Your task to perform on an android device: Clear the cart on newegg. Search for "bose soundlink" on newegg, select the first entry, add it to the cart, then select checkout. Image 0: 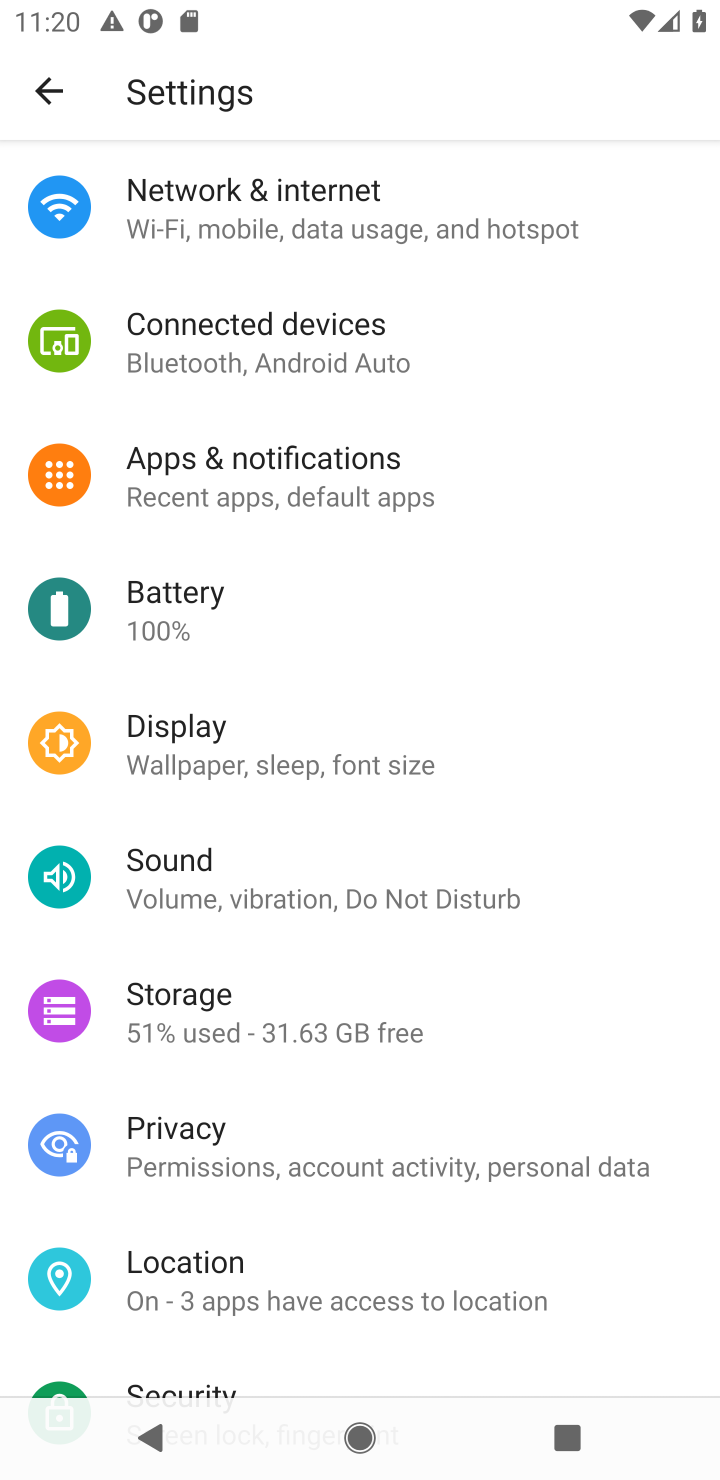
Step 0: press home button
Your task to perform on an android device: Clear the cart on newegg. Search for "bose soundlink" on newegg, select the first entry, add it to the cart, then select checkout. Image 1: 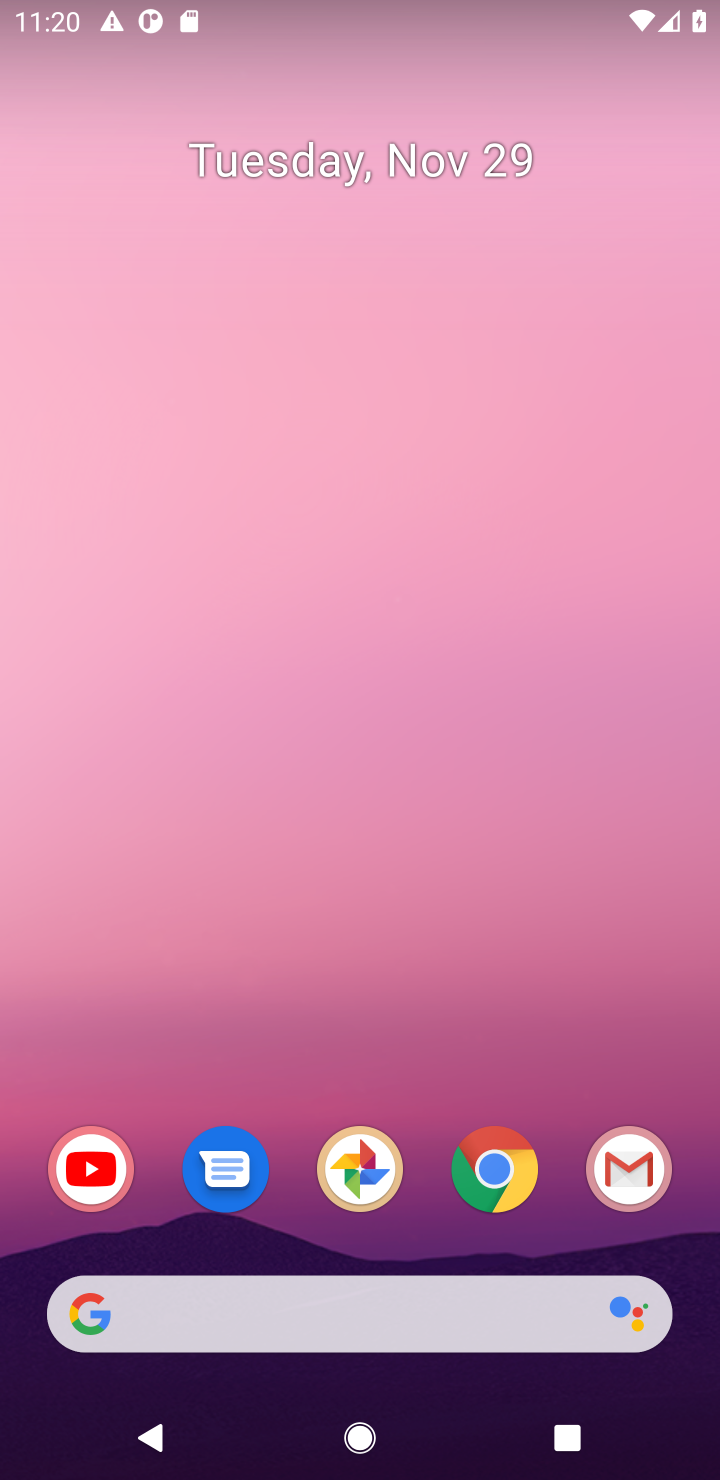
Step 1: click (484, 1321)
Your task to perform on an android device: Clear the cart on newegg. Search for "bose soundlink" on newegg, select the first entry, add it to the cart, then select checkout. Image 2: 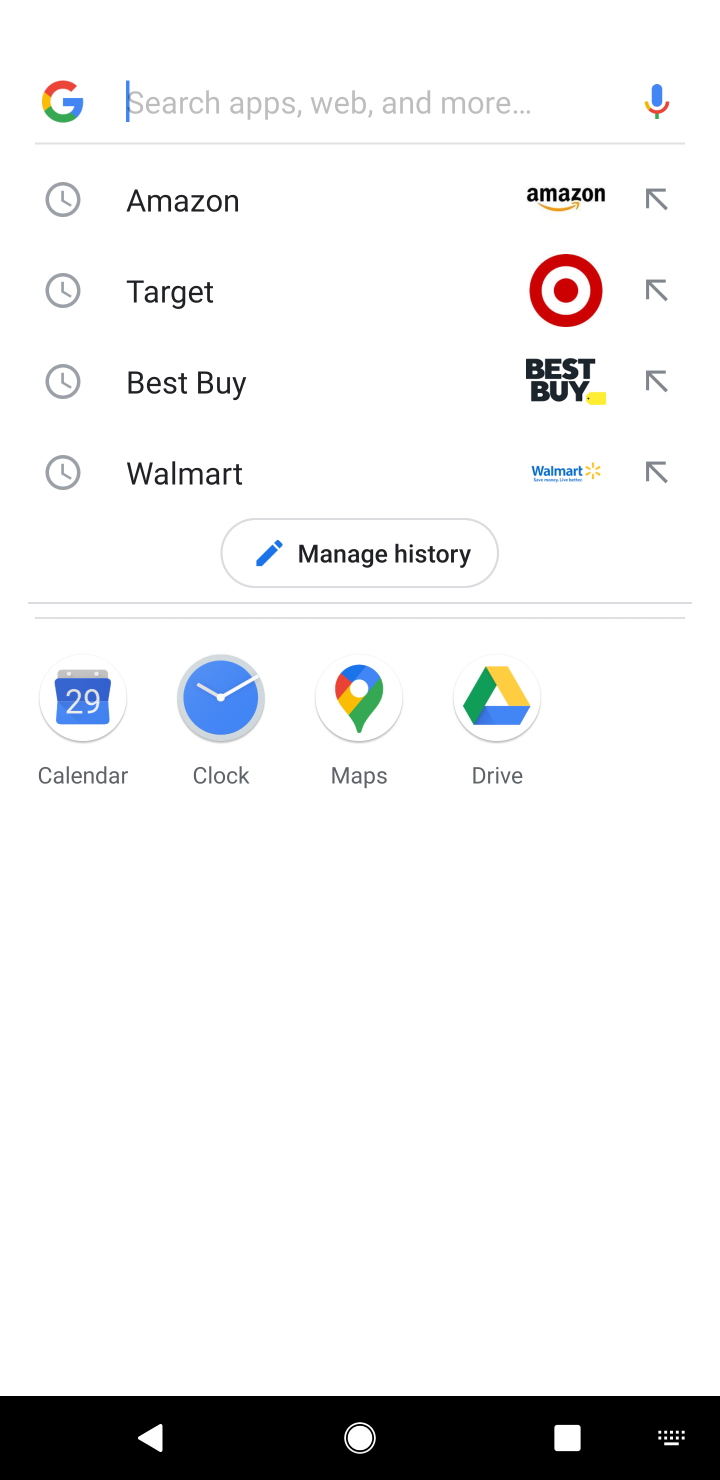
Step 2: type "newegg"
Your task to perform on an android device: Clear the cart on newegg. Search for "bose soundlink" on newegg, select the first entry, add it to the cart, then select checkout. Image 3: 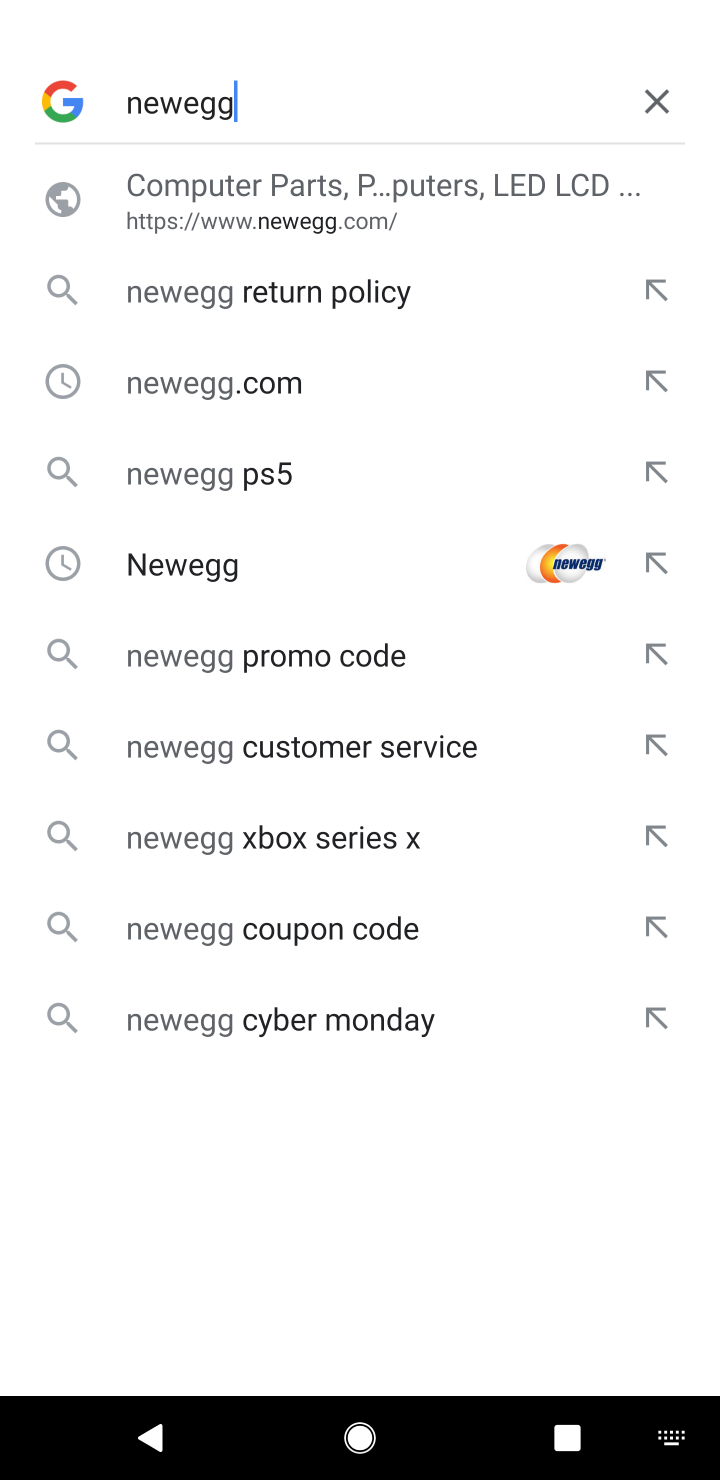
Step 3: click (187, 154)
Your task to perform on an android device: Clear the cart on newegg. Search for "bose soundlink" on newegg, select the first entry, add it to the cart, then select checkout. Image 4: 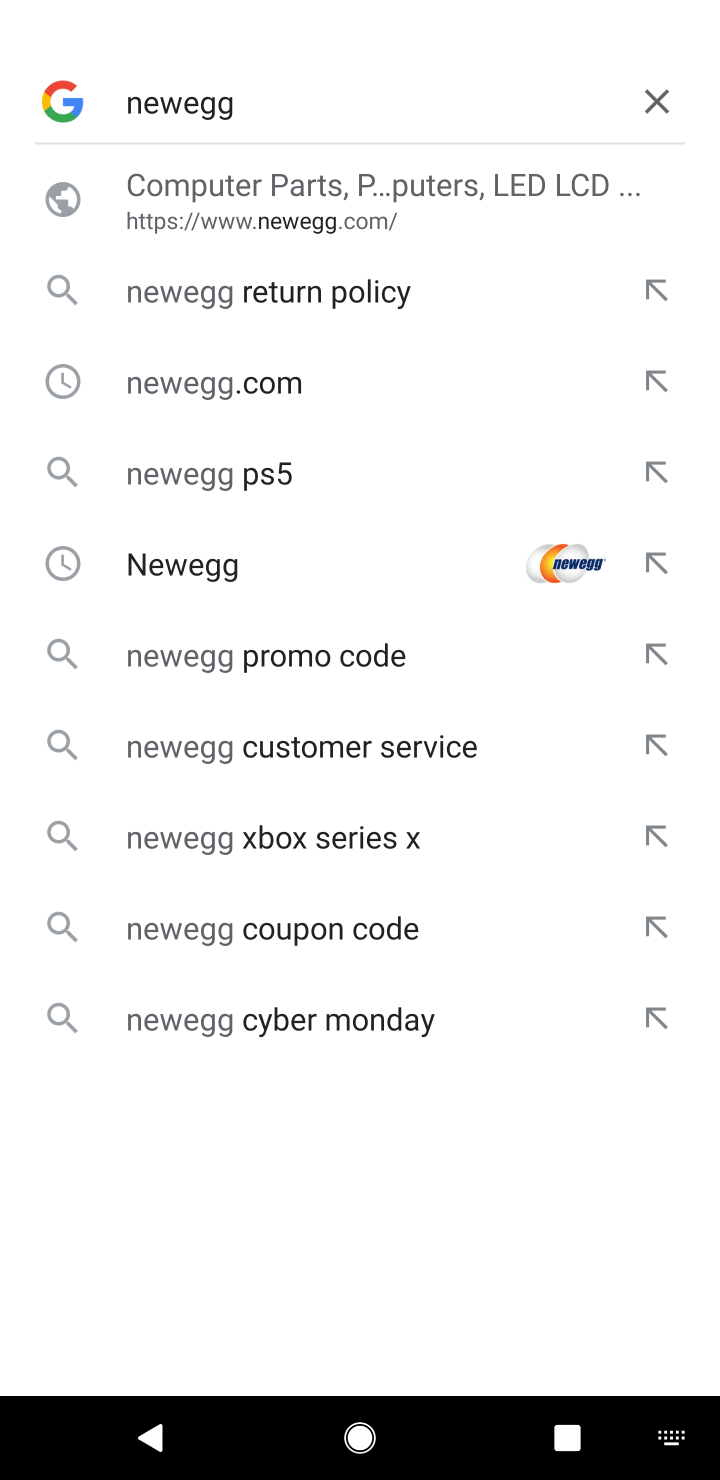
Step 4: click (239, 194)
Your task to perform on an android device: Clear the cart on newegg. Search for "bose soundlink" on newegg, select the first entry, add it to the cart, then select checkout. Image 5: 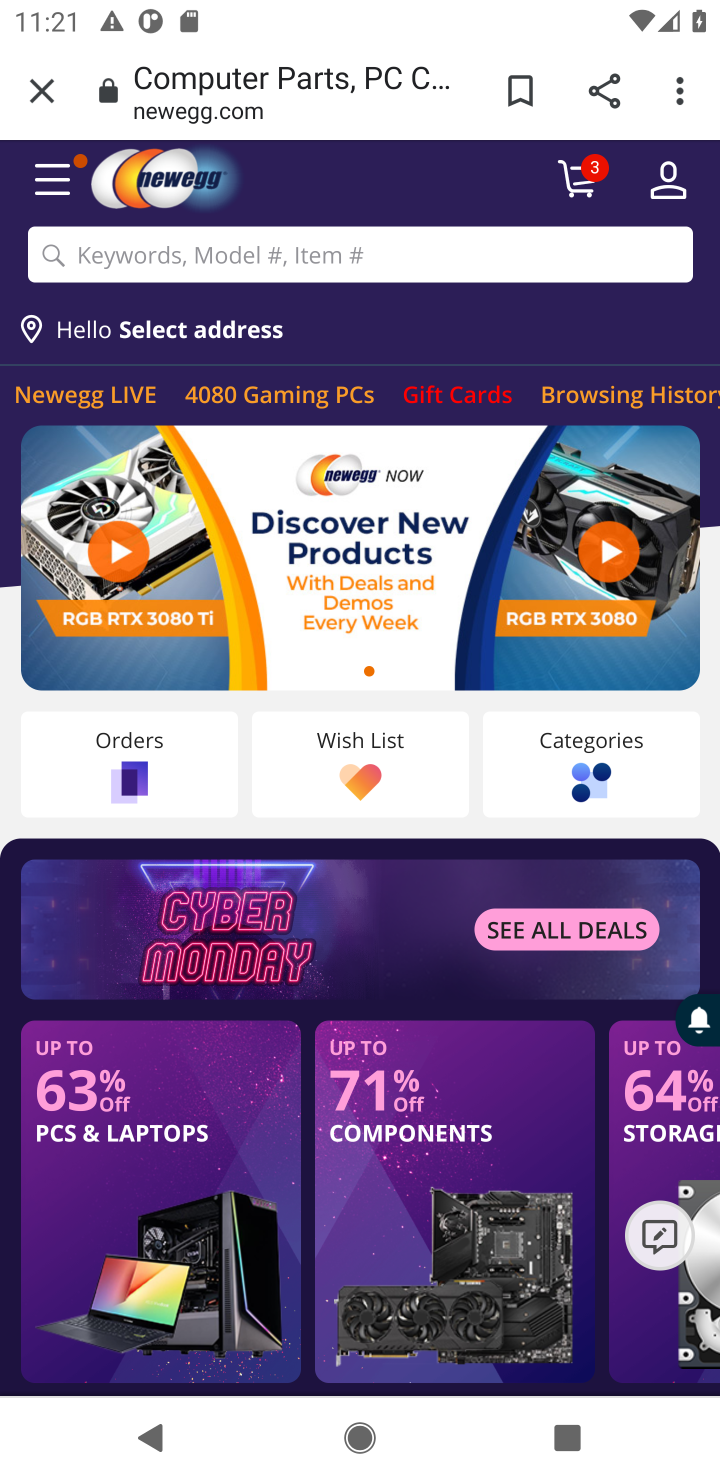
Step 5: click (159, 255)
Your task to perform on an android device: Clear the cart on newegg. Search for "bose soundlink" on newegg, select the first entry, add it to the cart, then select checkout. Image 6: 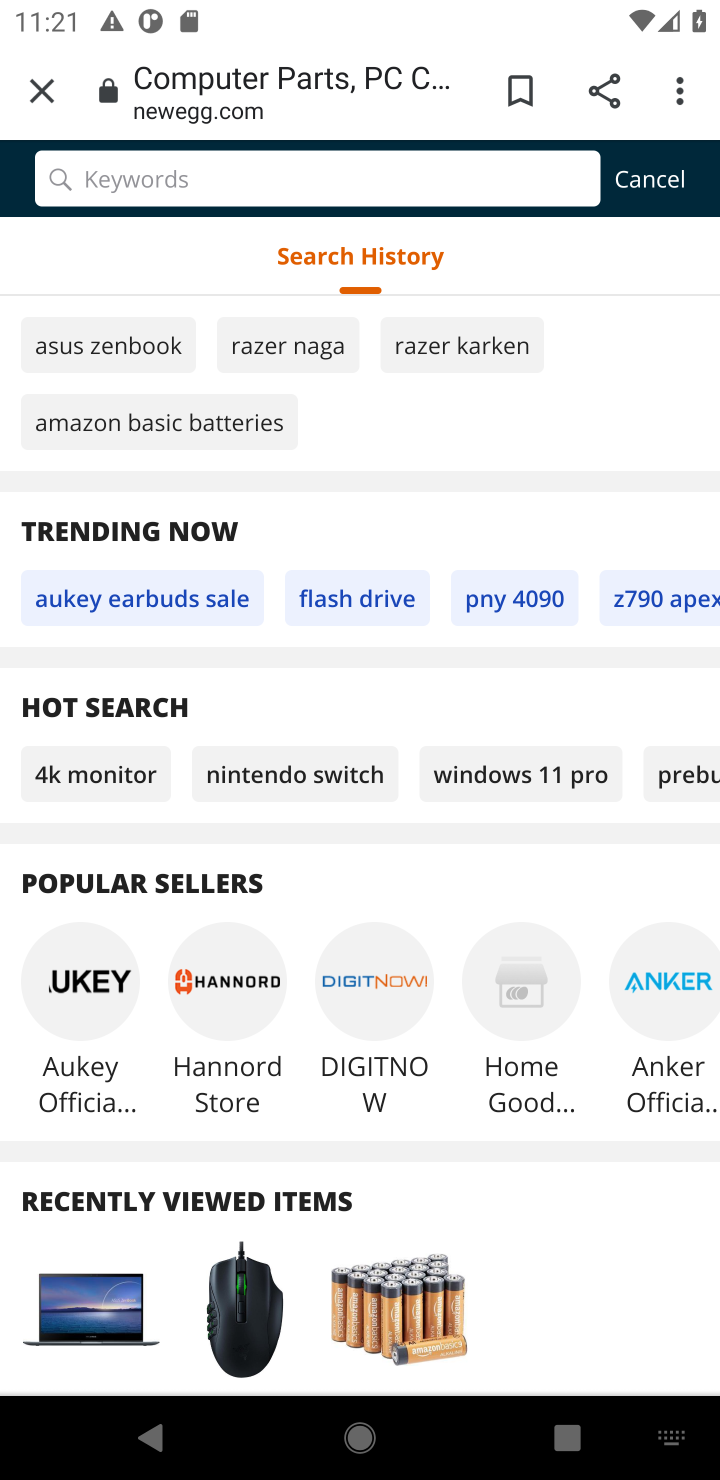
Step 6: type "bose sound link"
Your task to perform on an android device: Clear the cart on newegg. Search for "bose soundlink" on newegg, select the first entry, add it to the cart, then select checkout. Image 7: 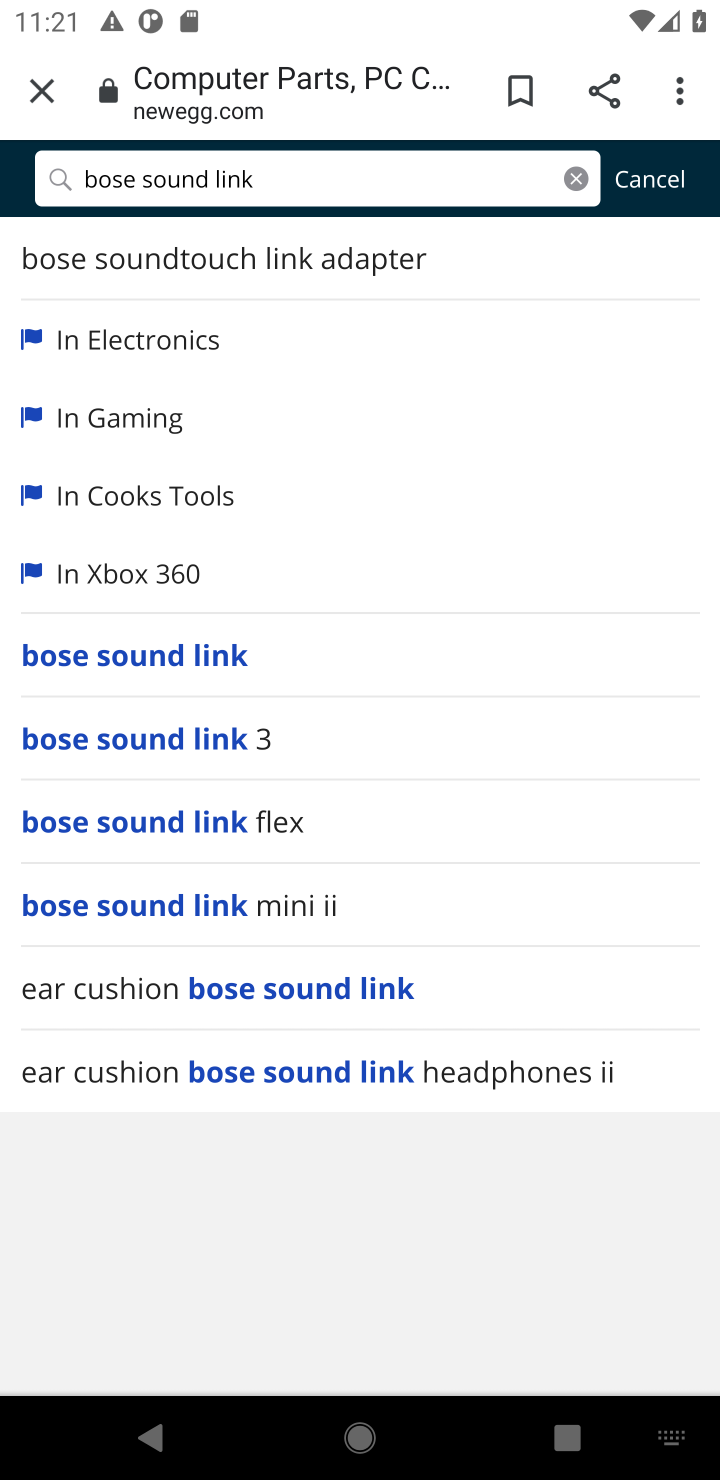
Step 7: task complete